Your task to perform on an android device: When is my next appointment? Image 0: 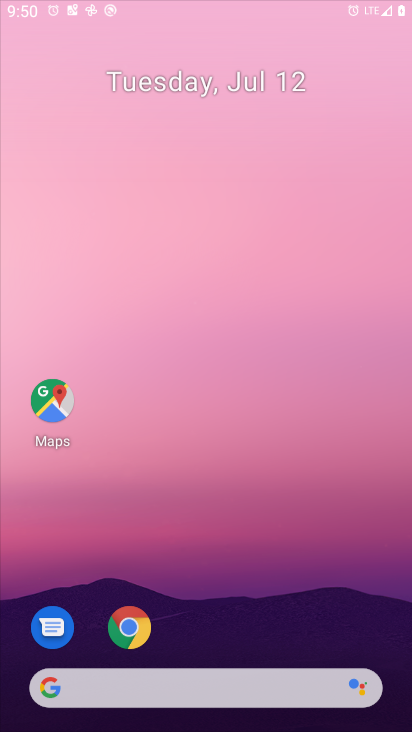
Step 0: press home button
Your task to perform on an android device: When is my next appointment? Image 1: 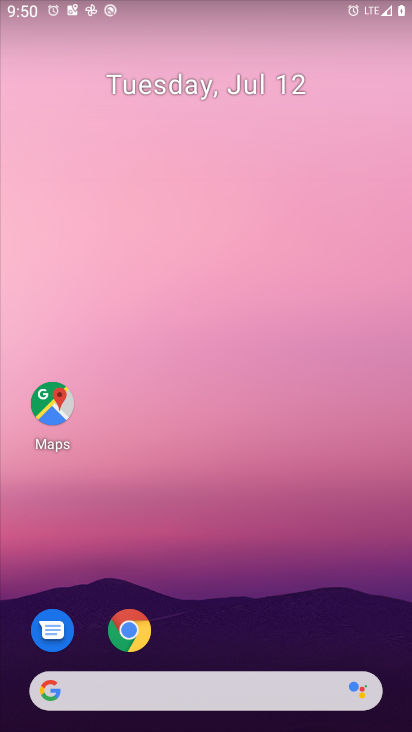
Step 1: drag from (264, 628) to (246, 220)
Your task to perform on an android device: When is my next appointment? Image 2: 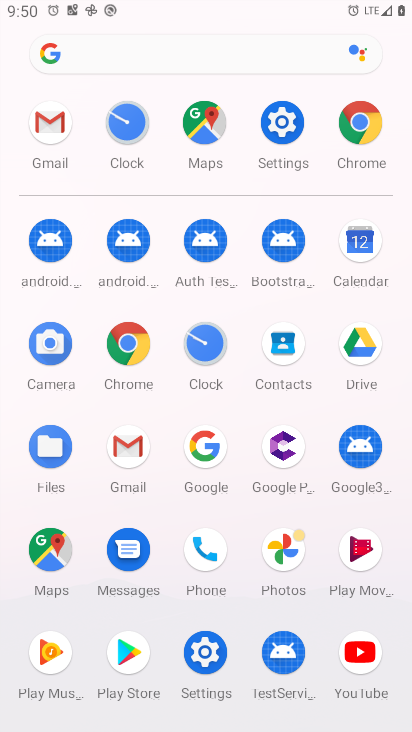
Step 2: click (356, 235)
Your task to perform on an android device: When is my next appointment? Image 3: 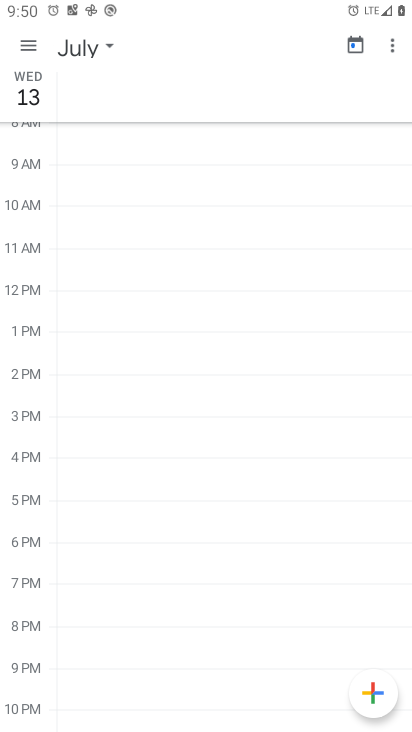
Step 3: click (26, 45)
Your task to perform on an android device: When is my next appointment? Image 4: 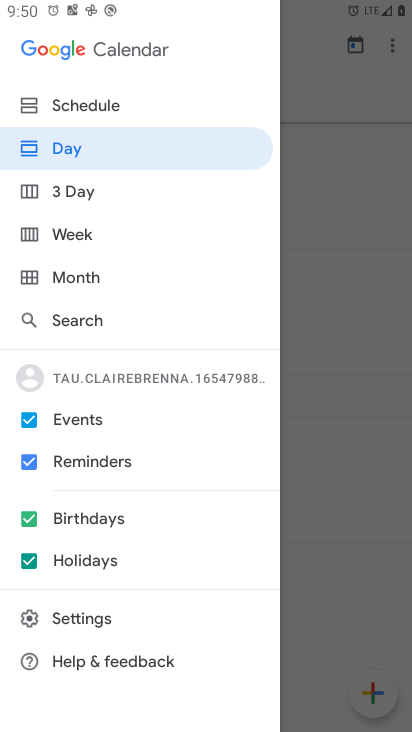
Step 4: click (87, 105)
Your task to perform on an android device: When is my next appointment? Image 5: 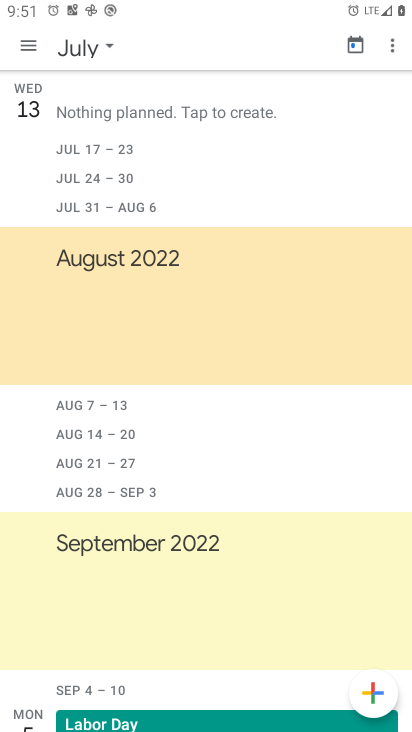
Step 5: task complete